Your task to perform on an android device: change the clock display to digital Image 0: 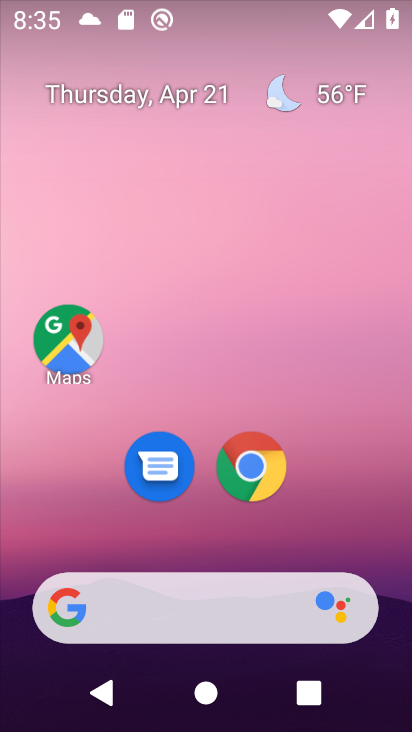
Step 0: drag from (181, 509) to (277, 45)
Your task to perform on an android device: change the clock display to digital Image 1: 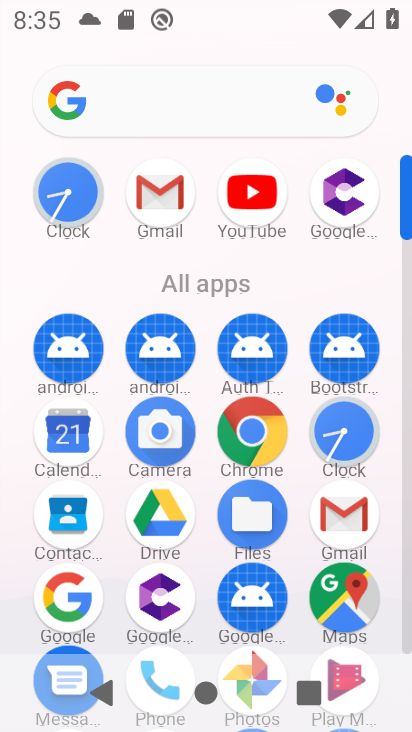
Step 1: click (360, 430)
Your task to perform on an android device: change the clock display to digital Image 2: 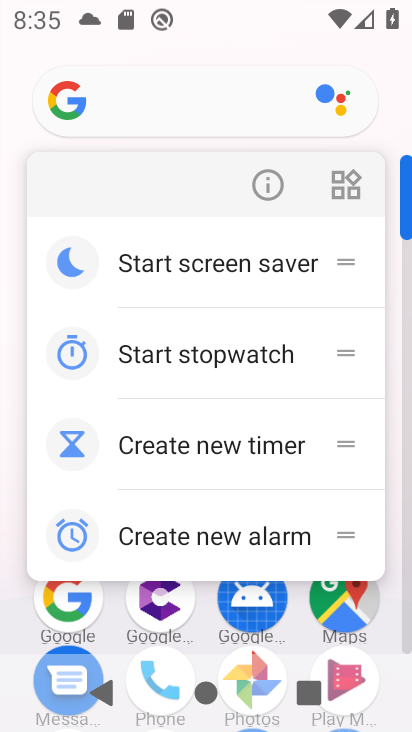
Step 2: press back button
Your task to perform on an android device: change the clock display to digital Image 3: 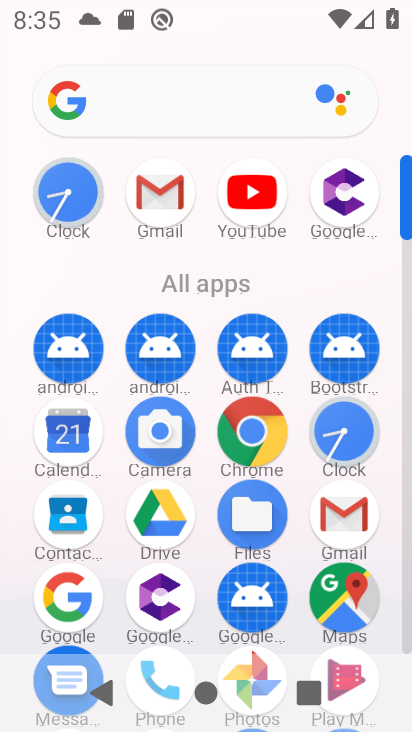
Step 3: click (351, 433)
Your task to perform on an android device: change the clock display to digital Image 4: 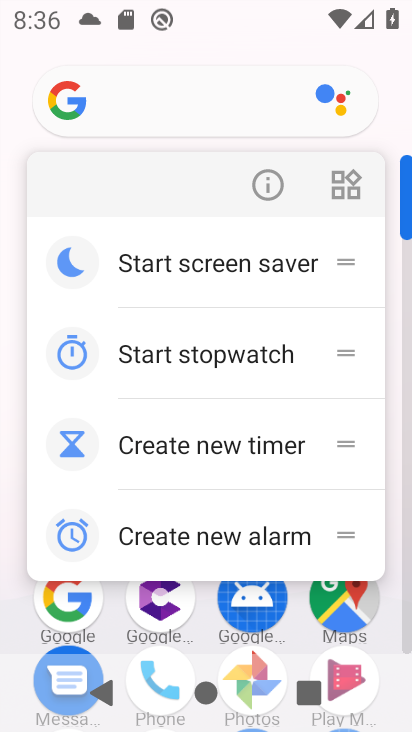
Step 4: press back button
Your task to perform on an android device: change the clock display to digital Image 5: 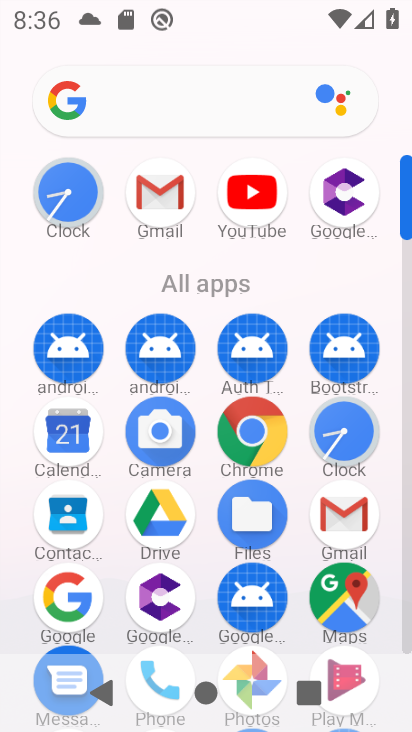
Step 5: click (353, 442)
Your task to perform on an android device: change the clock display to digital Image 6: 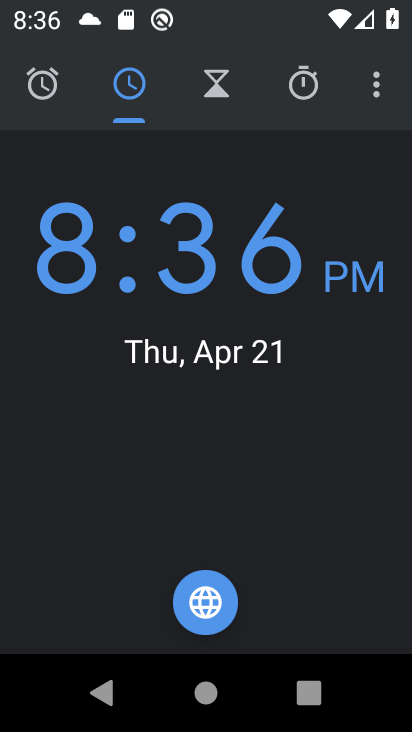
Step 6: click (380, 85)
Your task to perform on an android device: change the clock display to digital Image 7: 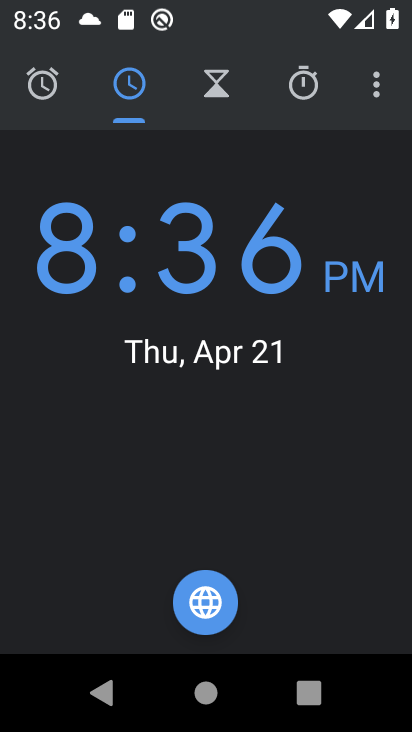
Step 7: click (372, 98)
Your task to perform on an android device: change the clock display to digital Image 8: 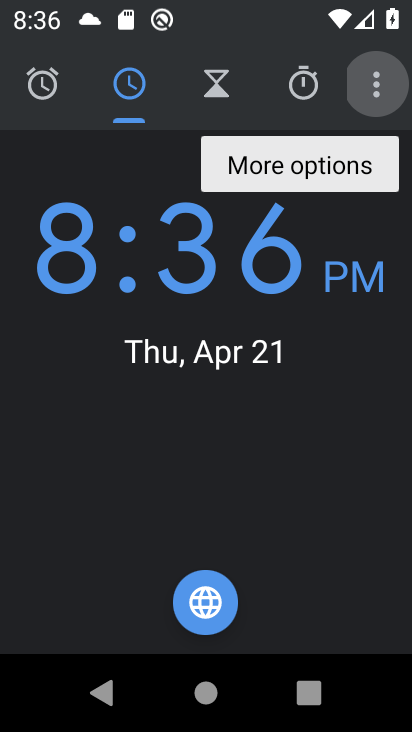
Step 8: click (368, 70)
Your task to perform on an android device: change the clock display to digital Image 9: 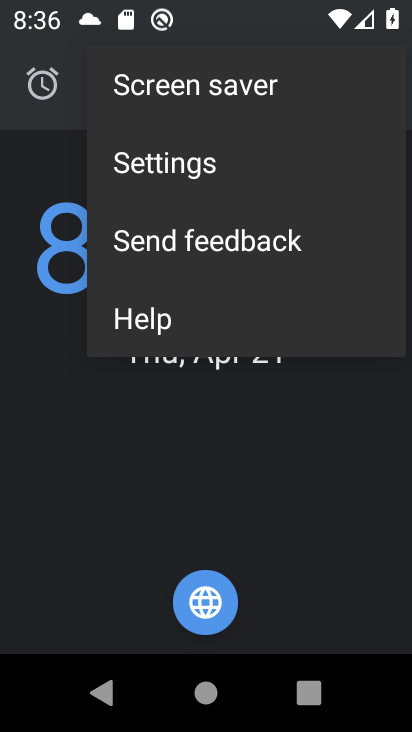
Step 9: click (305, 169)
Your task to perform on an android device: change the clock display to digital Image 10: 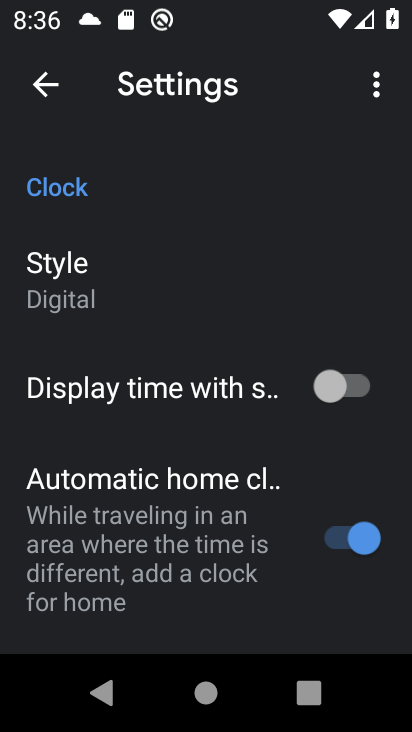
Step 10: task complete